Your task to perform on an android device: install app "YouTube Kids" Image 0: 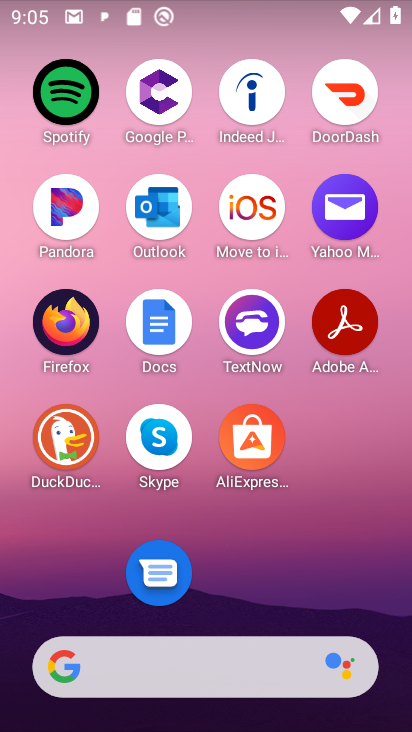
Step 0: drag from (237, 598) to (236, 94)
Your task to perform on an android device: install app "YouTube Kids" Image 1: 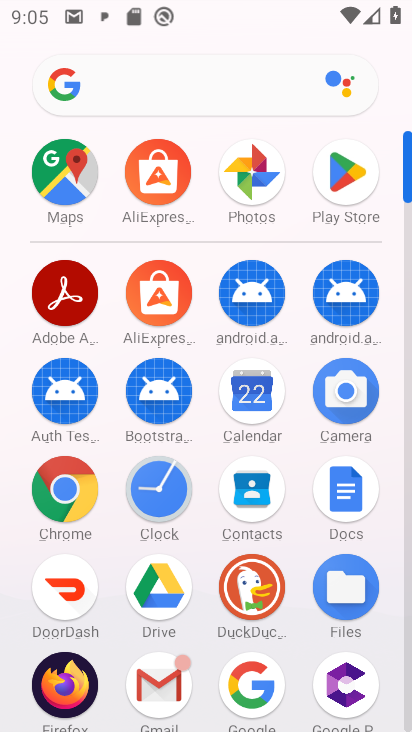
Step 1: click (343, 168)
Your task to perform on an android device: install app "YouTube Kids" Image 2: 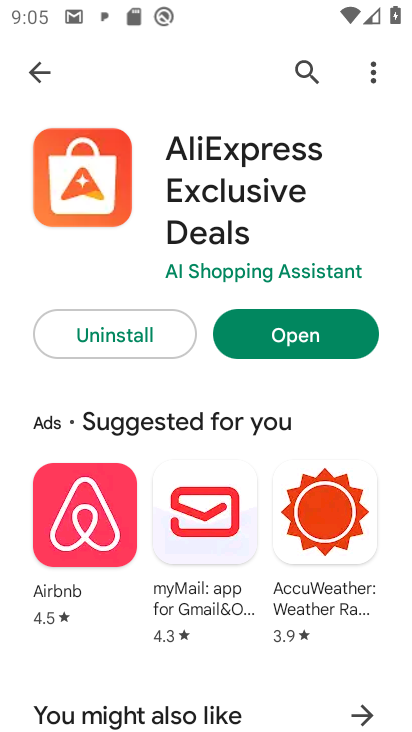
Step 2: click (33, 67)
Your task to perform on an android device: install app "YouTube Kids" Image 3: 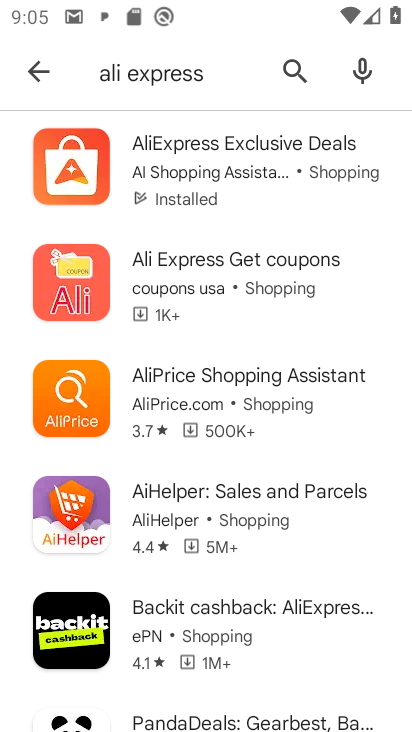
Step 3: click (139, 72)
Your task to perform on an android device: install app "YouTube Kids" Image 4: 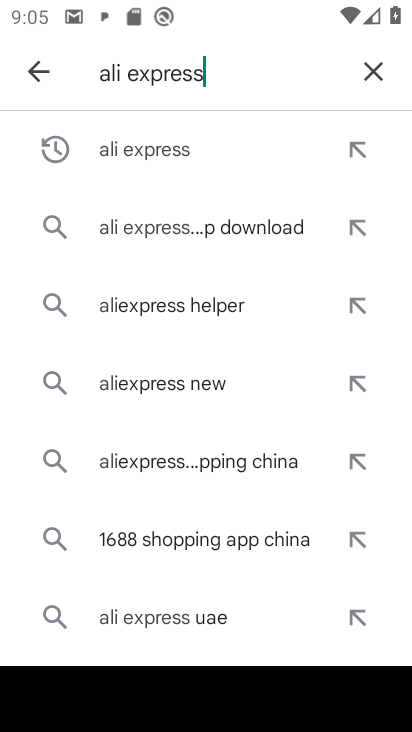
Step 4: click (379, 82)
Your task to perform on an android device: install app "YouTube Kids" Image 5: 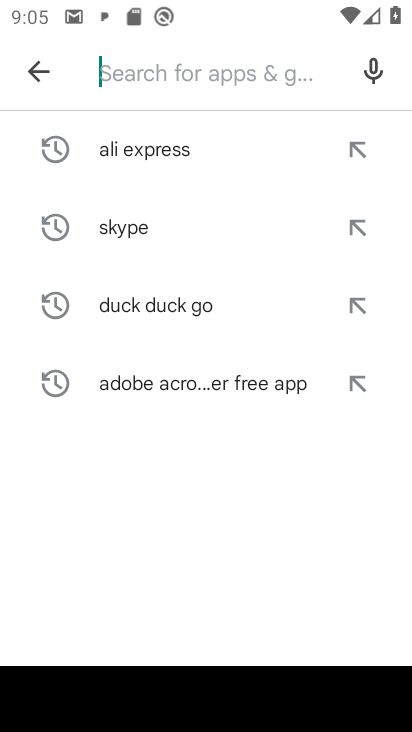
Step 5: type "youtube kids"
Your task to perform on an android device: install app "YouTube Kids" Image 6: 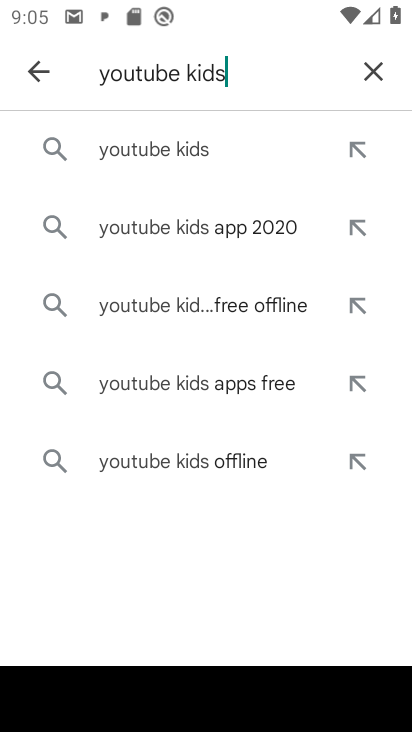
Step 6: click (159, 158)
Your task to perform on an android device: install app "YouTube Kids" Image 7: 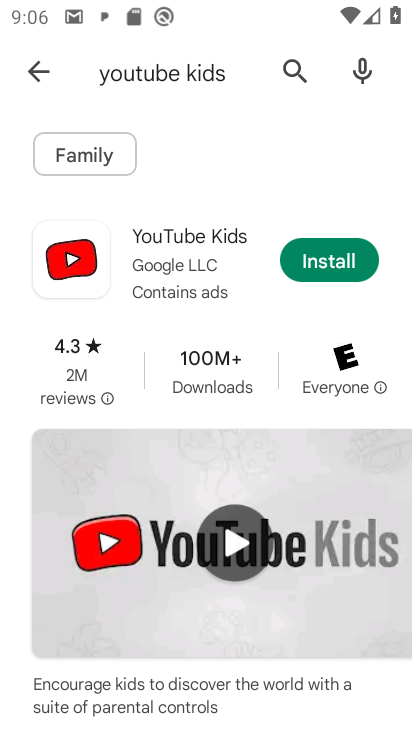
Step 7: click (333, 256)
Your task to perform on an android device: install app "YouTube Kids" Image 8: 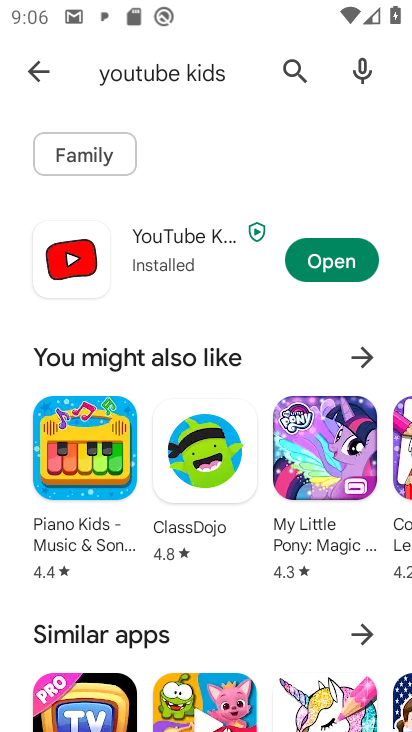
Step 8: task complete